Your task to perform on an android device: Open Maps and search for coffee Image 0: 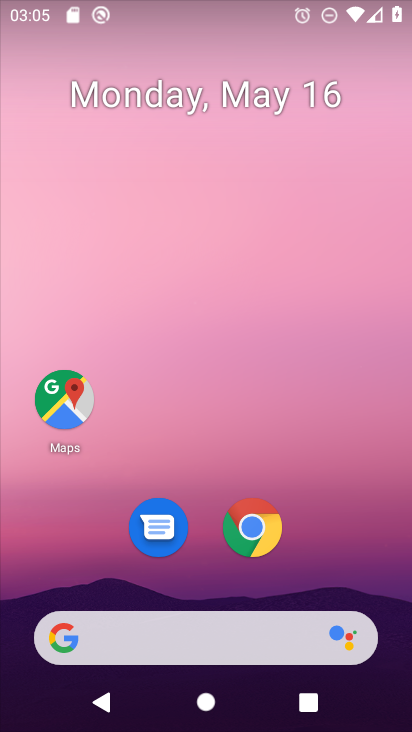
Step 0: click (70, 394)
Your task to perform on an android device: Open Maps and search for coffee Image 1: 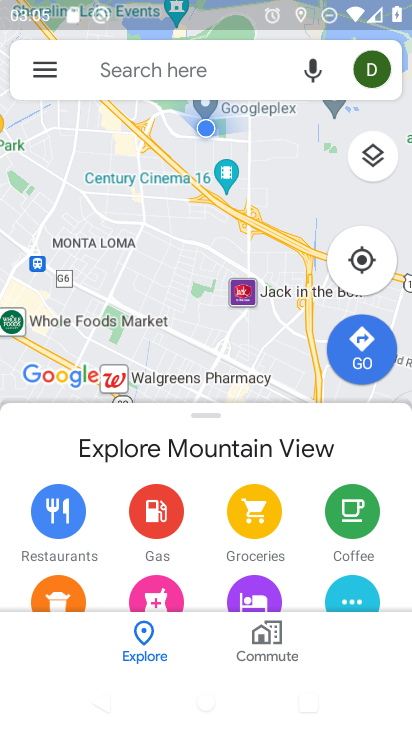
Step 1: click (146, 82)
Your task to perform on an android device: Open Maps and search for coffee Image 2: 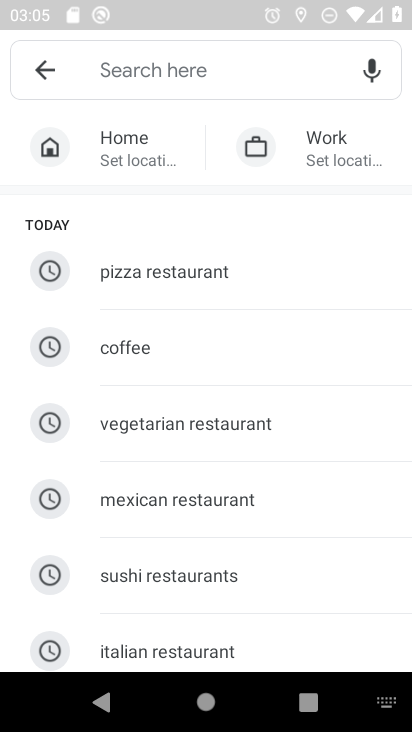
Step 2: click (200, 355)
Your task to perform on an android device: Open Maps and search for coffee Image 3: 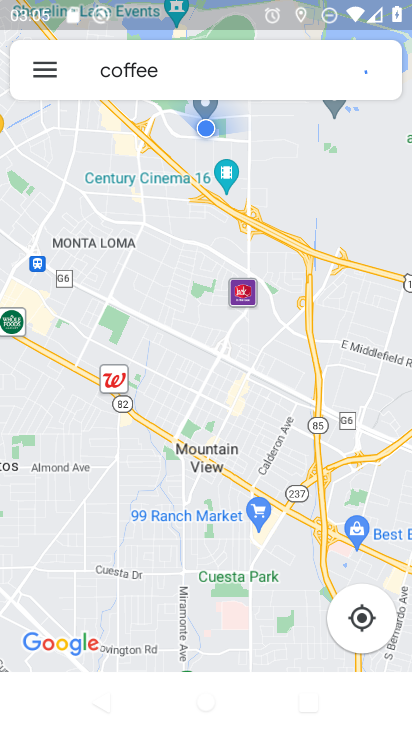
Step 3: task complete